Your task to perform on an android device: Open Chrome and go to the settings page Image 0: 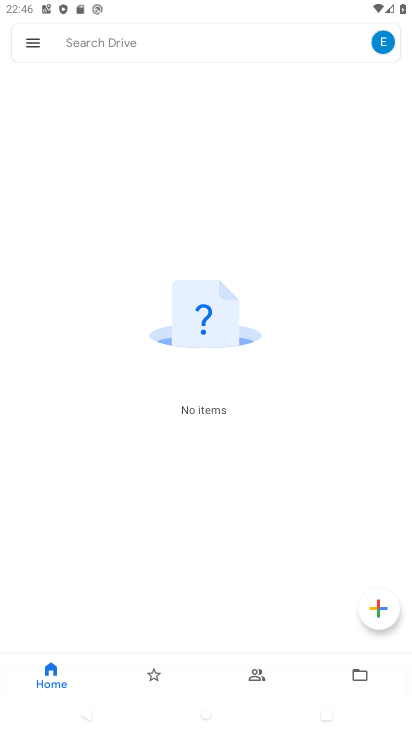
Step 0: press home button
Your task to perform on an android device: Open Chrome and go to the settings page Image 1: 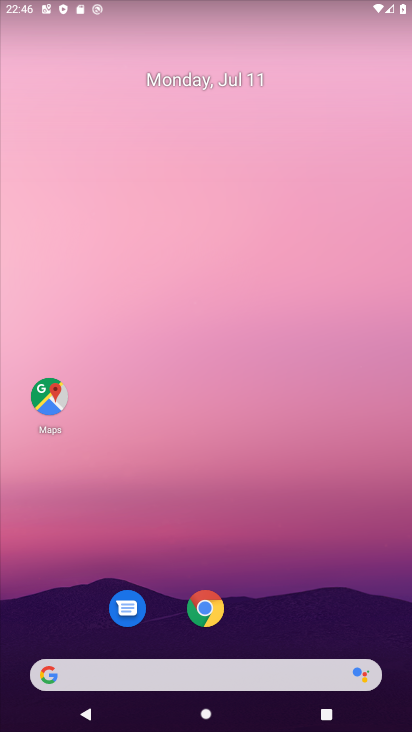
Step 1: click (212, 615)
Your task to perform on an android device: Open Chrome and go to the settings page Image 2: 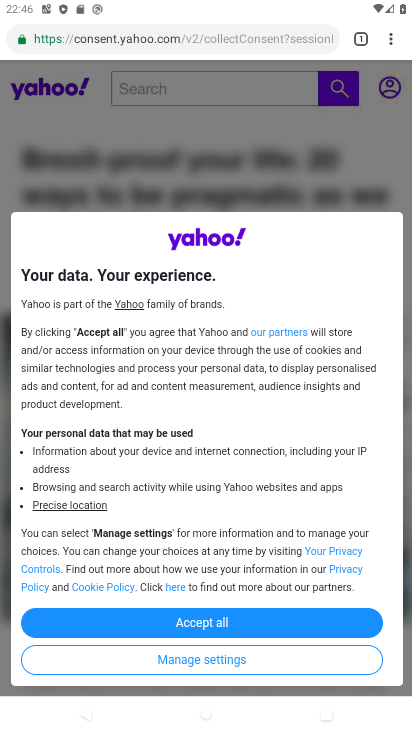
Step 2: click (390, 37)
Your task to perform on an android device: Open Chrome and go to the settings page Image 3: 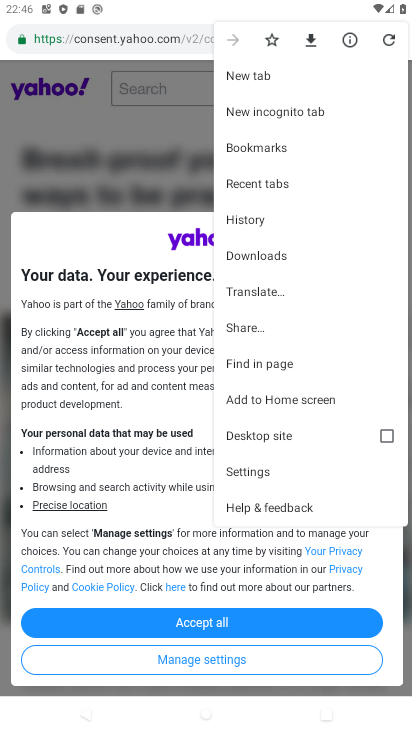
Step 3: click (248, 469)
Your task to perform on an android device: Open Chrome and go to the settings page Image 4: 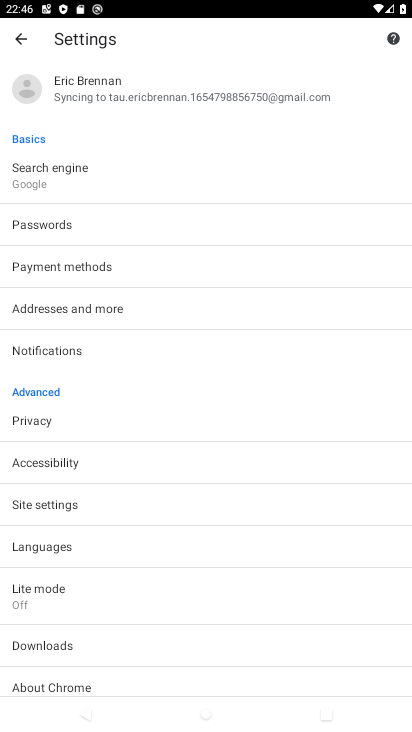
Step 4: task complete